Your task to perform on an android device: Open sound settings Image 0: 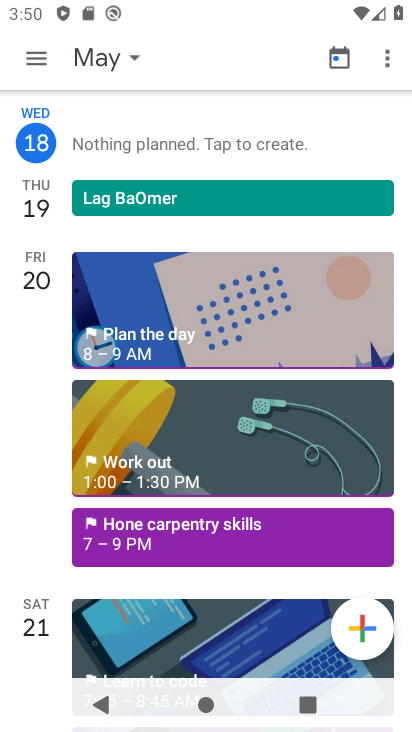
Step 0: press home button
Your task to perform on an android device: Open sound settings Image 1: 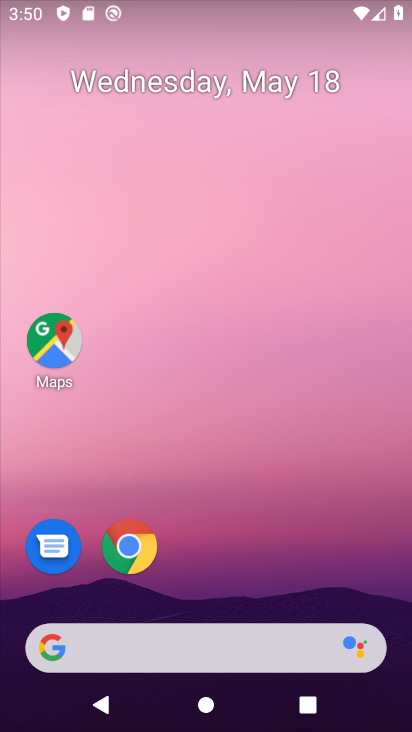
Step 1: drag from (222, 599) to (266, 7)
Your task to perform on an android device: Open sound settings Image 2: 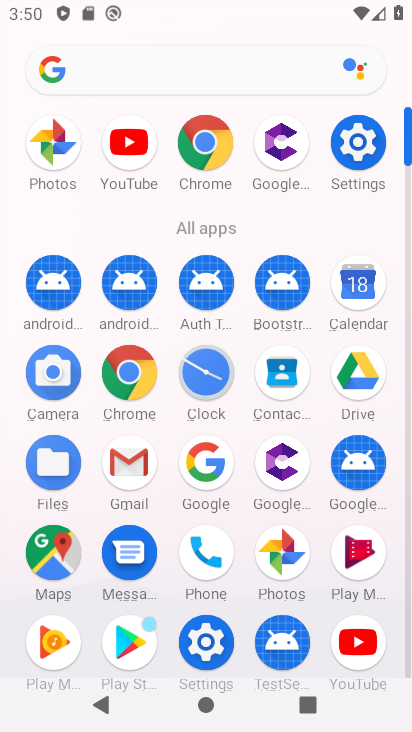
Step 2: click (216, 641)
Your task to perform on an android device: Open sound settings Image 3: 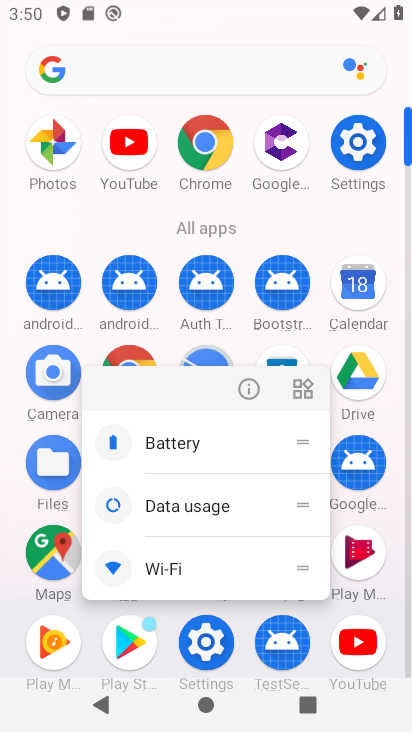
Step 3: click (212, 643)
Your task to perform on an android device: Open sound settings Image 4: 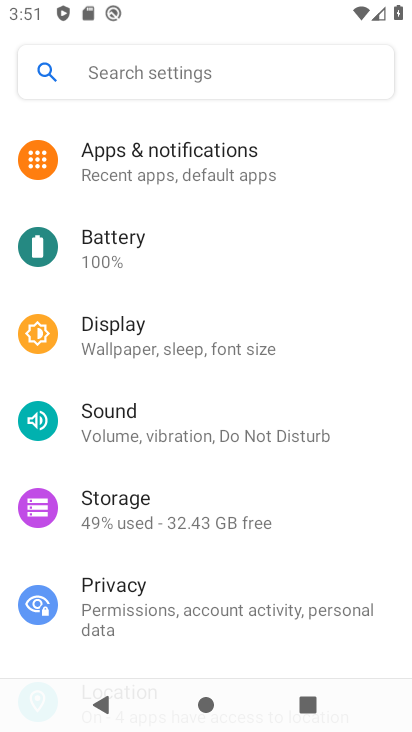
Step 4: click (193, 436)
Your task to perform on an android device: Open sound settings Image 5: 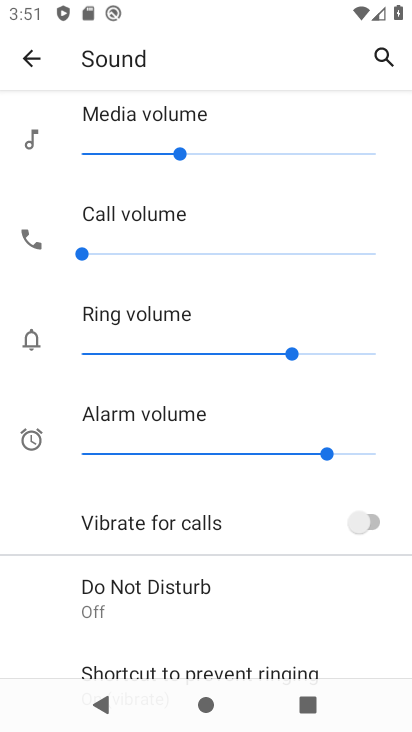
Step 5: task complete